Your task to perform on an android device: Go to Reddit.com Image 0: 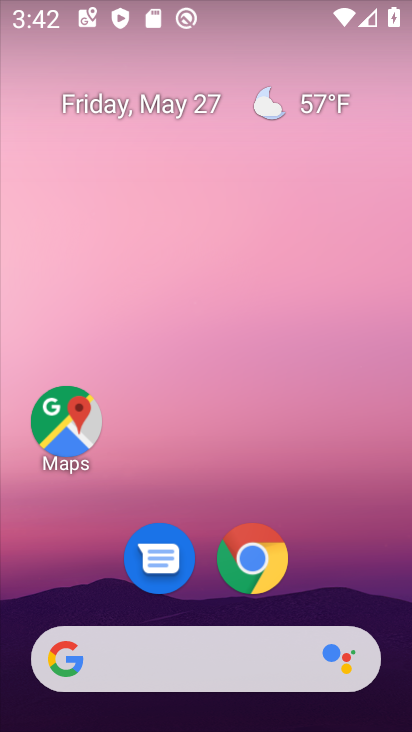
Step 0: click (281, 660)
Your task to perform on an android device: Go to Reddit.com Image 1: 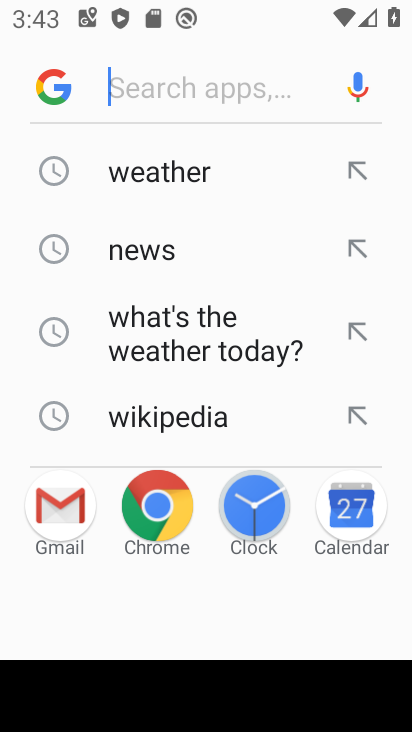
Step 1: type "reddit"
Your task to perform on an android device: Go to Reddit.com Image 2: 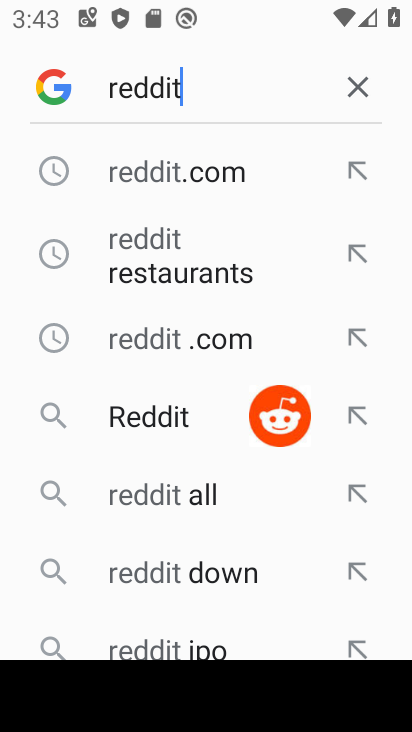
Step 2: click (211, 192)
Your task to perform on an android device: Go to Reddit.com Image 3: 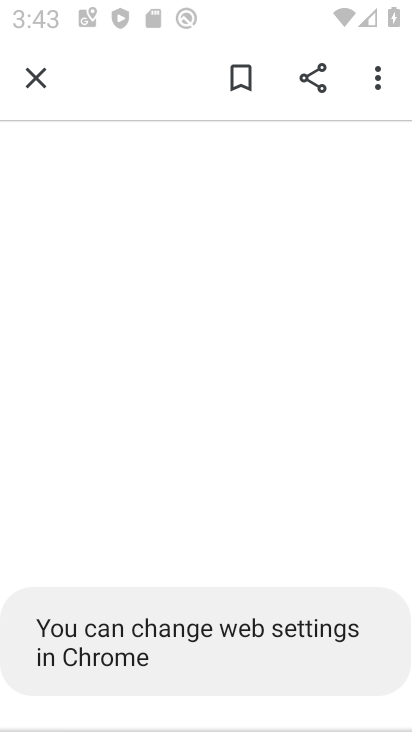
Step 3: task complete